Your task to perform on an android device: Empty the shopping cart on newegg. Search for logitech g pro on newegg, select the first entry, add it to the cart, then select checkout. Image 0: 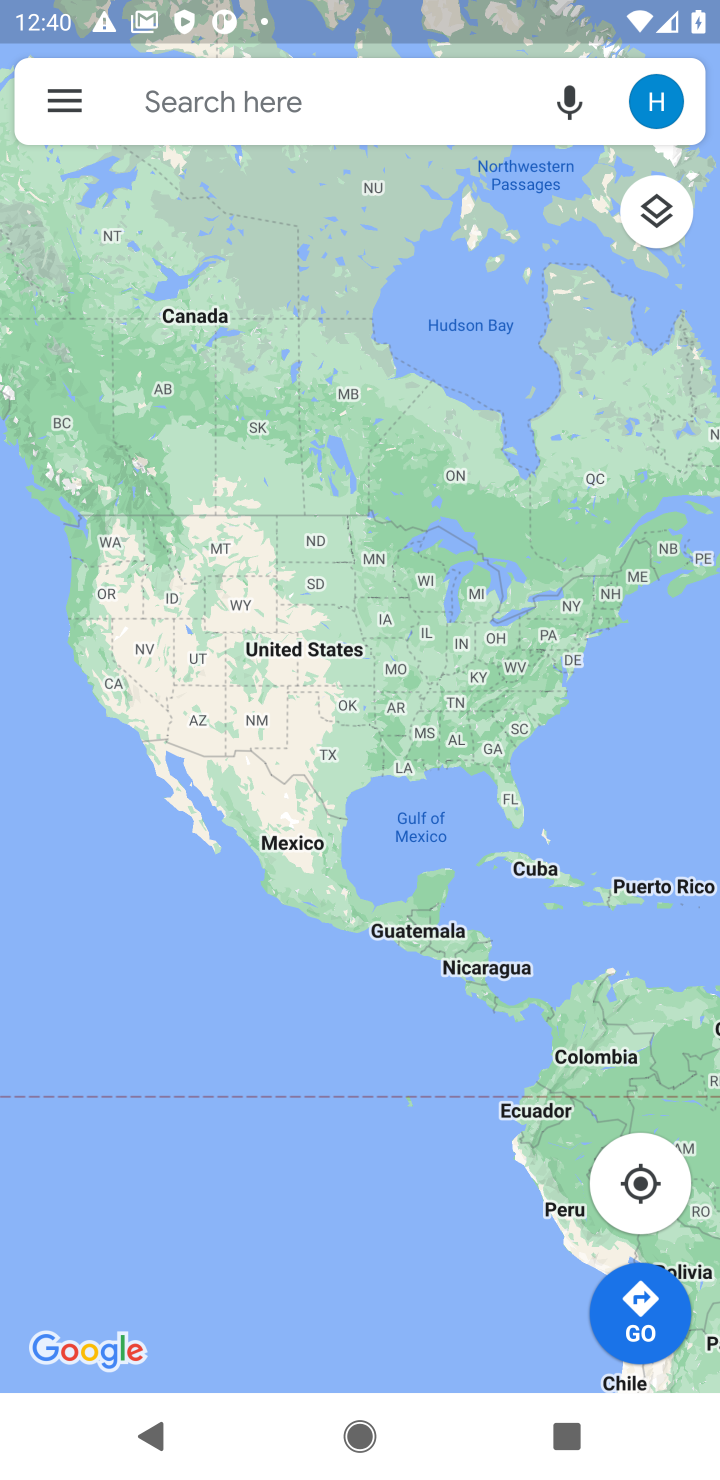
Step 0: press home button
Your task to perform on an android device: Empty the shopping cart on newegg. Search for logitech g pro on newegg, select the first entry, add it to the cart, then select checkout. Image 1: 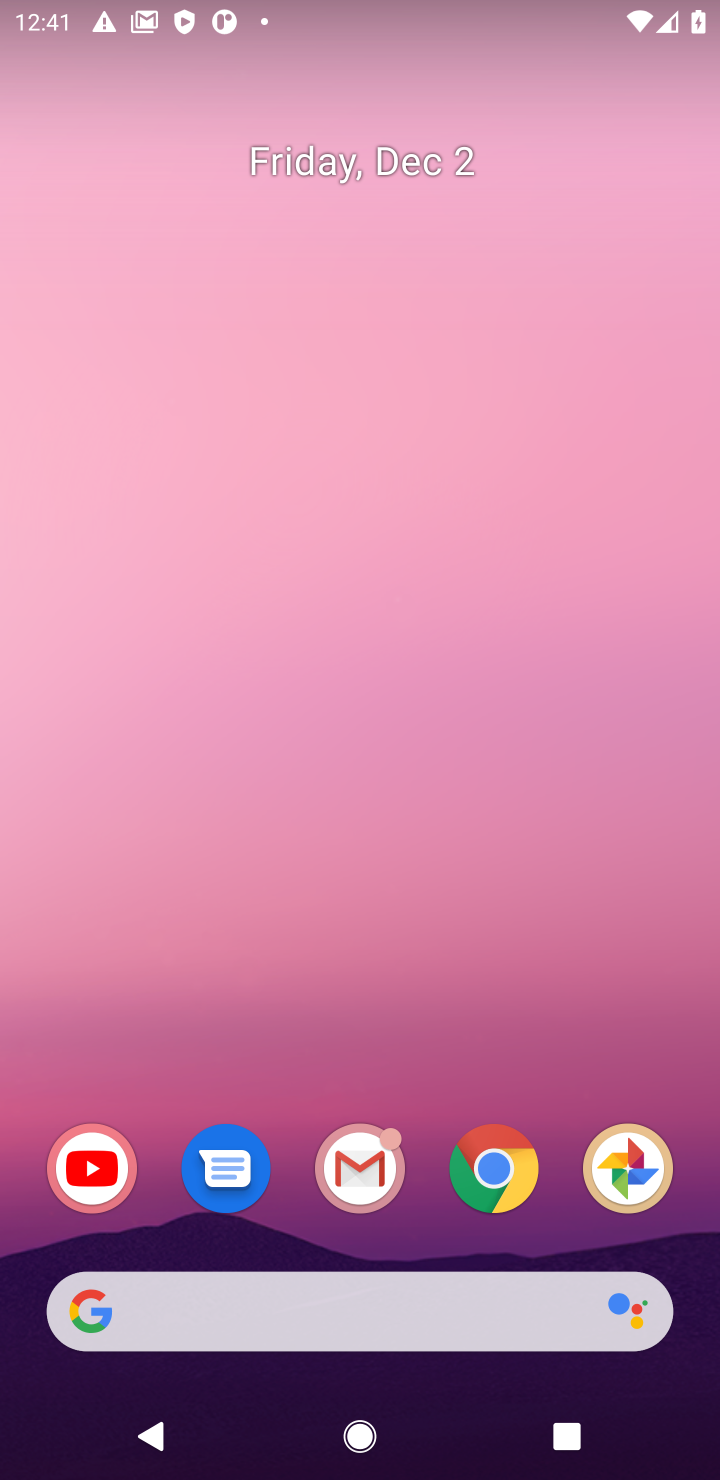
Step 1: click (481, 1170)
Your task to perform on an android device: Empty the shopping cart on newegg. Search for logitech g pro on newegg, select the first entry, add it to the cart, then select checkout. Image 2: 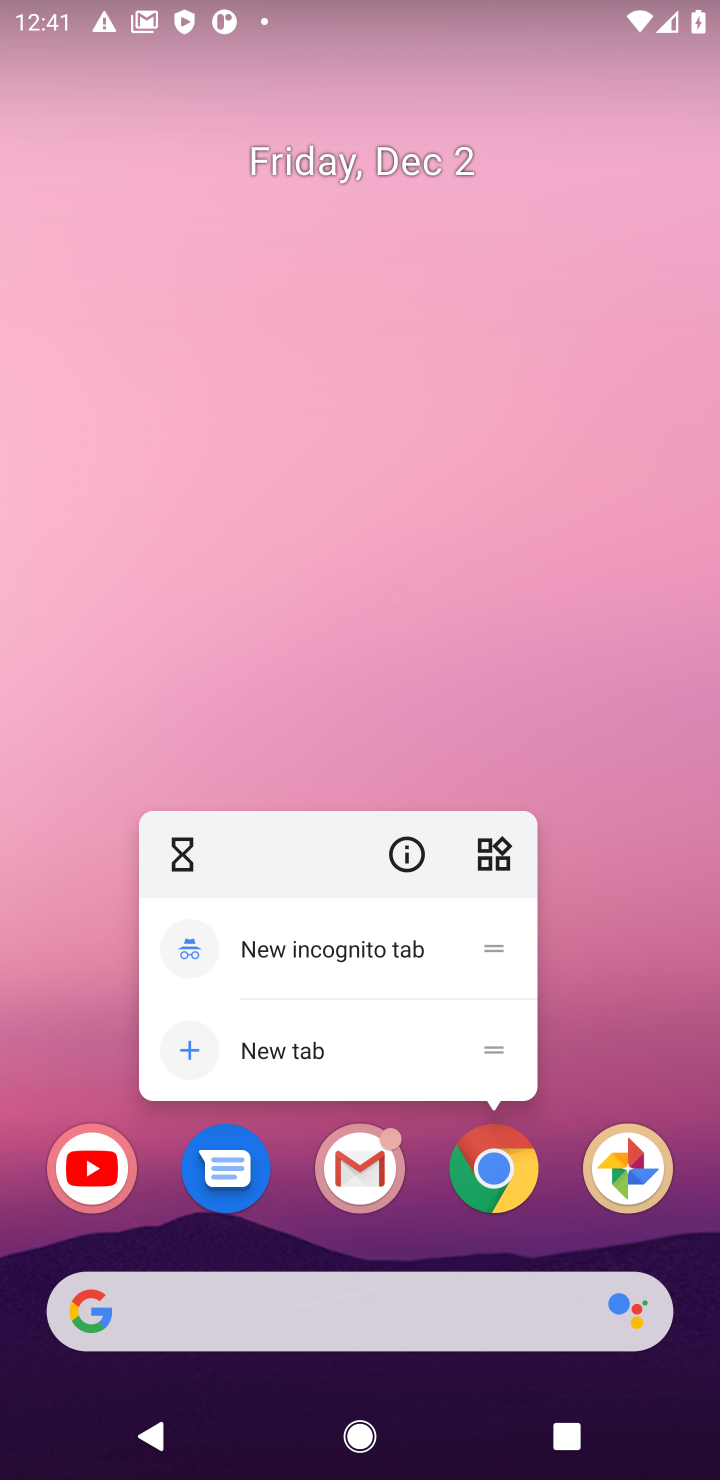
Step 2: click (489, 1174)
Your task to perform on an android device: Empty the shopping cart on newegg. Search for logitech g pro on newegg, select the first entry, add it to the cart, then select checkout. Image 3: 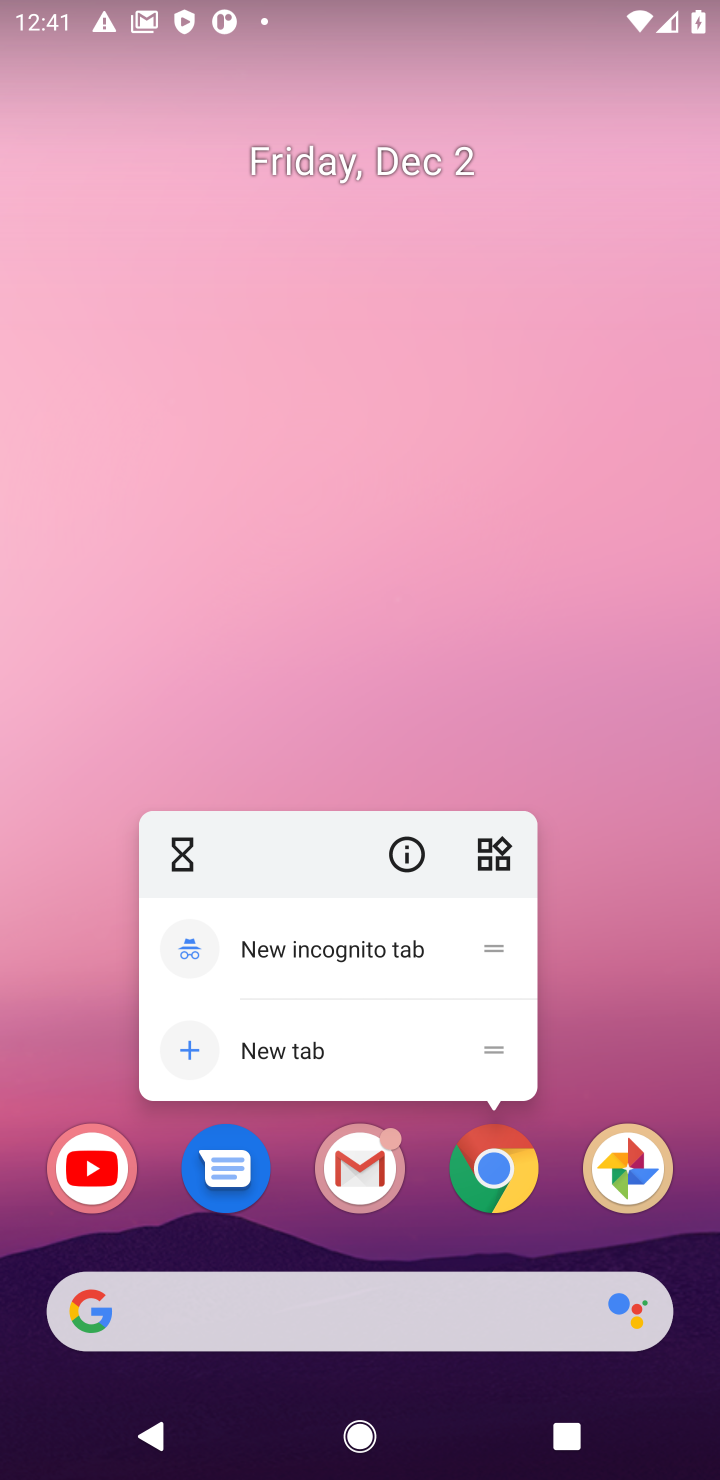
Step 3: click (494, 1173)
Your task to perform on an android device: Empty the shopping cart on newegg. Search for logitech g pro on newegg, select the first entry, add it to the cart, then select checkout. Image 4: 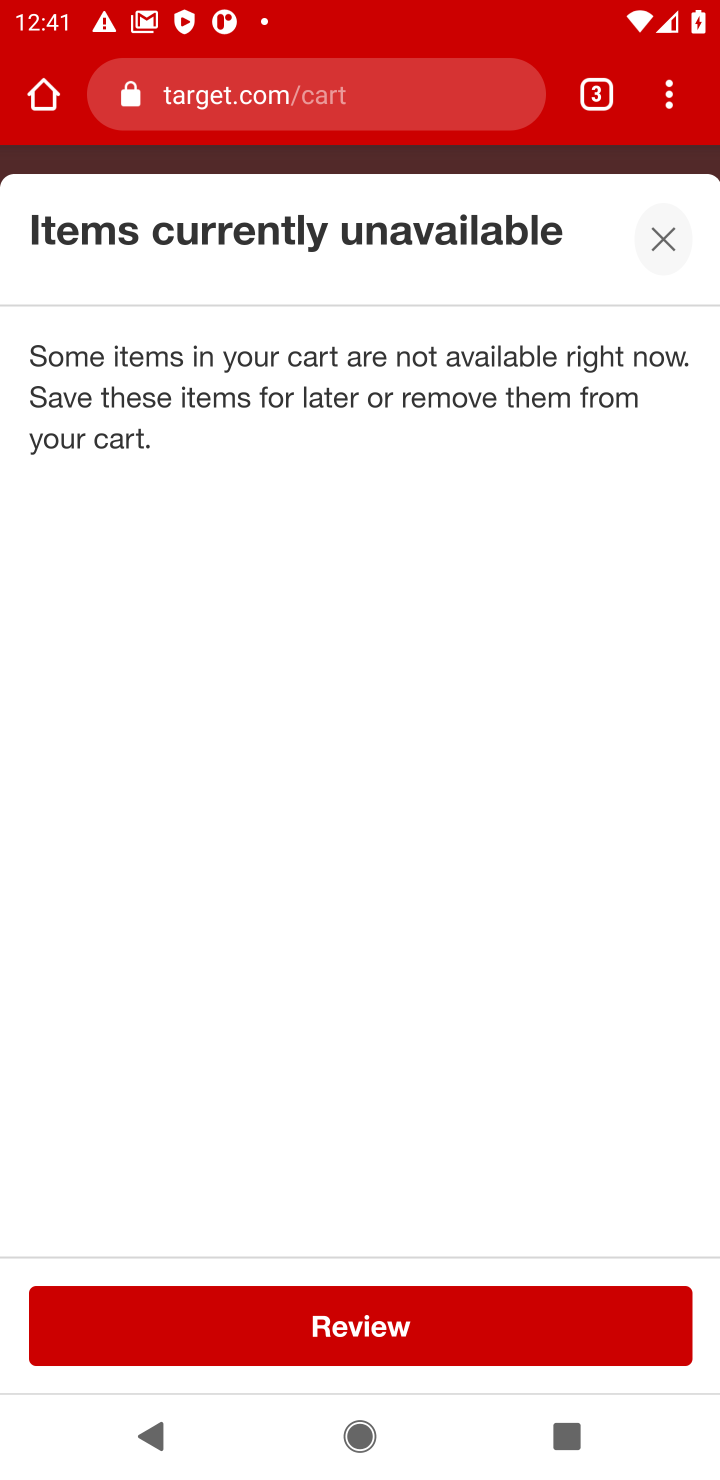
Step 4: click (272, 89)
Your task to perform on an android device: Empty the shopping cart on newegg. Search for logitech g pro on newegg, select the first entry, add it to the cart, then select checkout. Image 5: 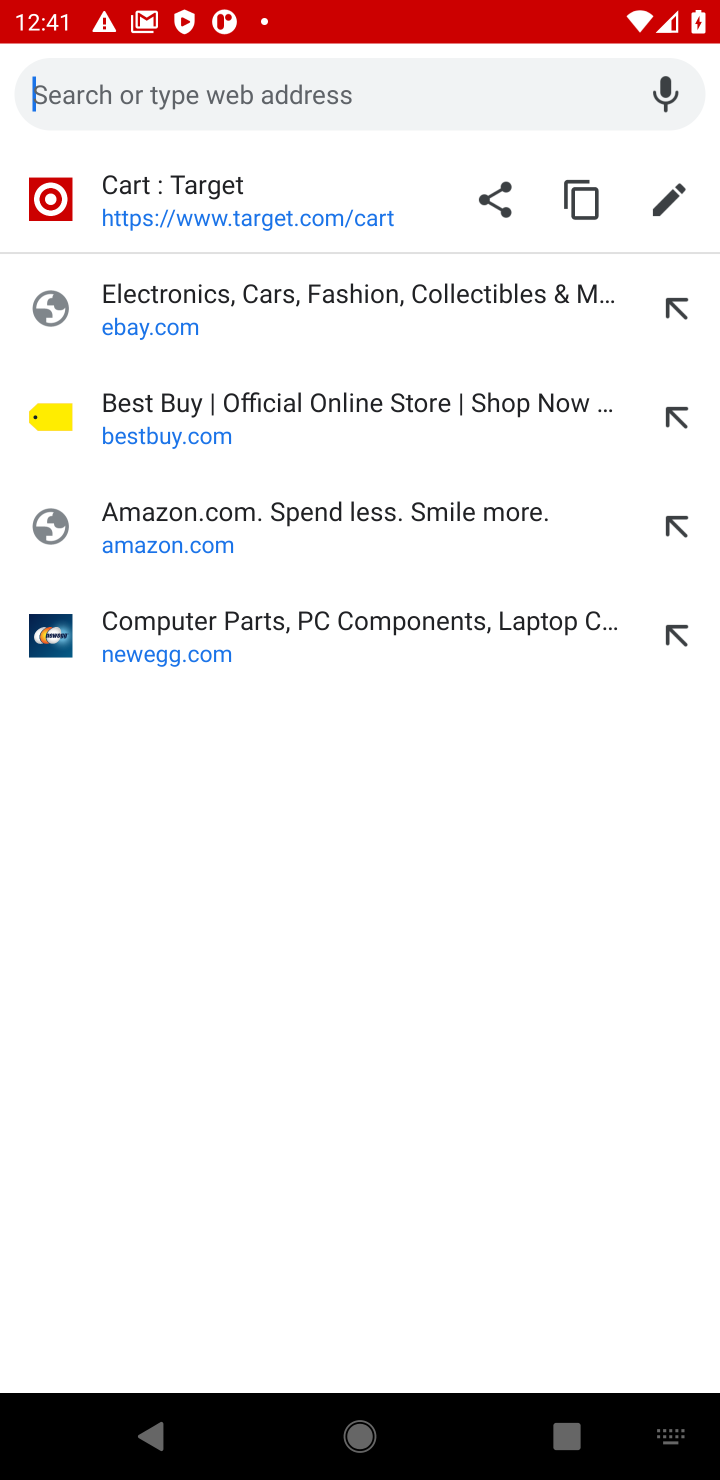
Step 5: click (109, 628)
Your task to perform on an android device: Empty the shopping cart on newegg. Search for logitech g pro on newegg, select the first entry, add it to the cart, then select checkout. Image 6: 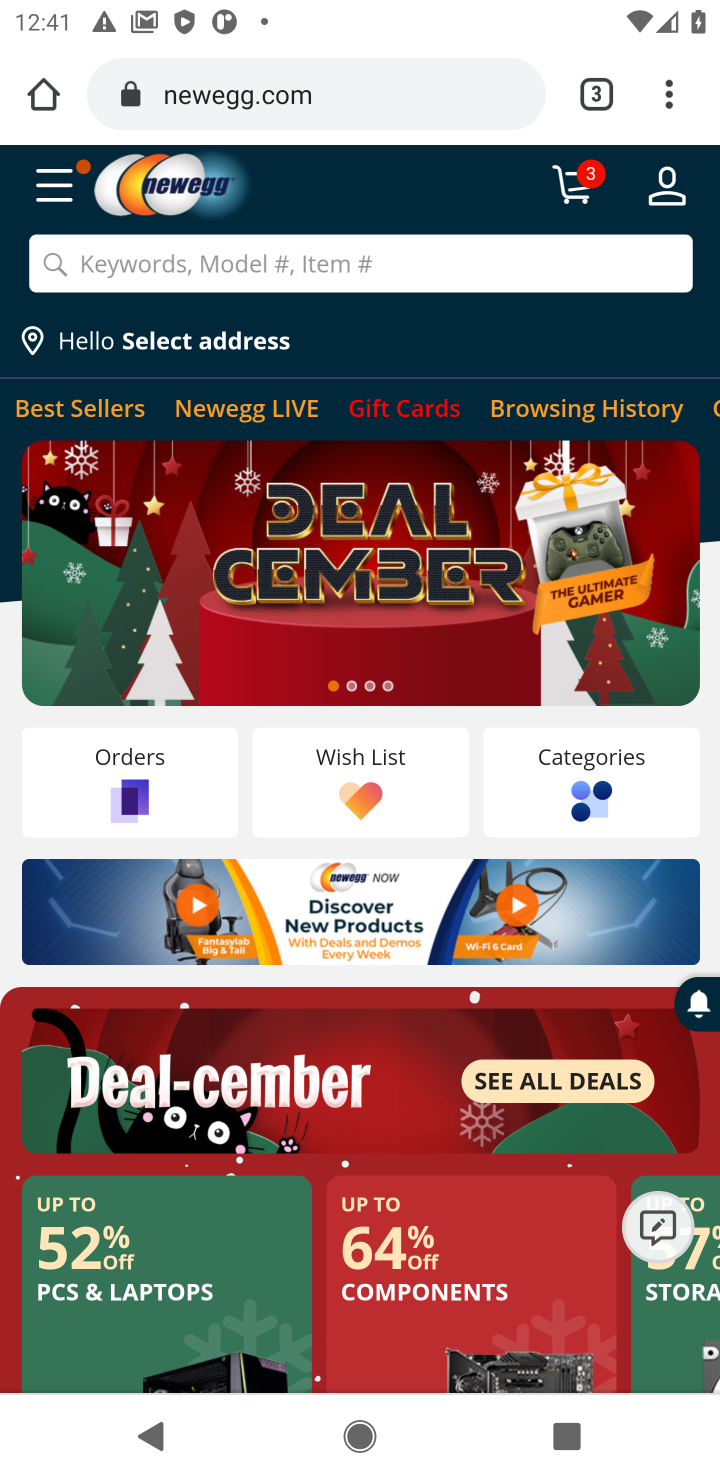
Step 6: click (577, 195)
Your task to perform on an android device: Empty the shopping cart on newegg. Search for logitech g pro on newegg, select the first entry, add it to the cart, then select checkout. Image 7: 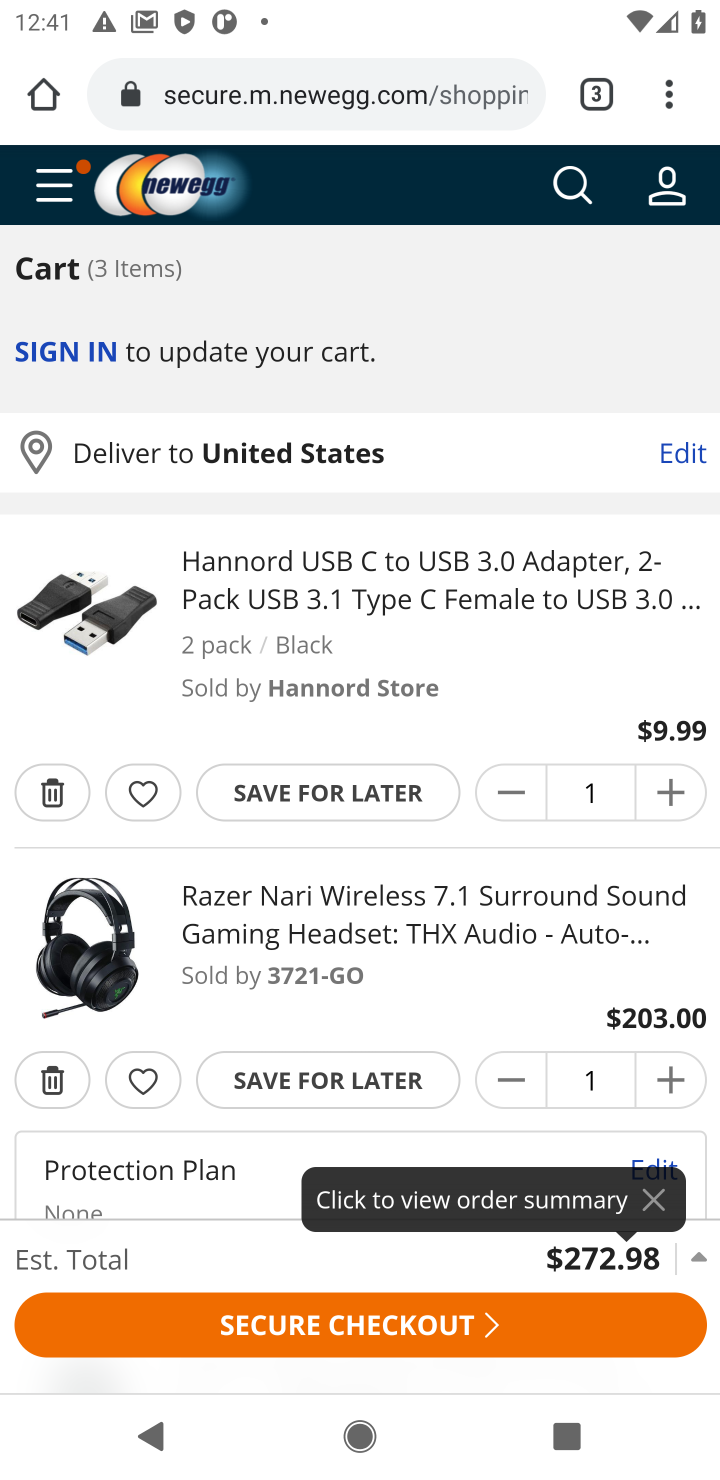
Step 7: click (61, 793)
Your task to perform on an android device: Empty the shopping cart on newegg. Search for logitech g pro on newegg, select the first entry, add it to the cart, then select checkout. Image 8: 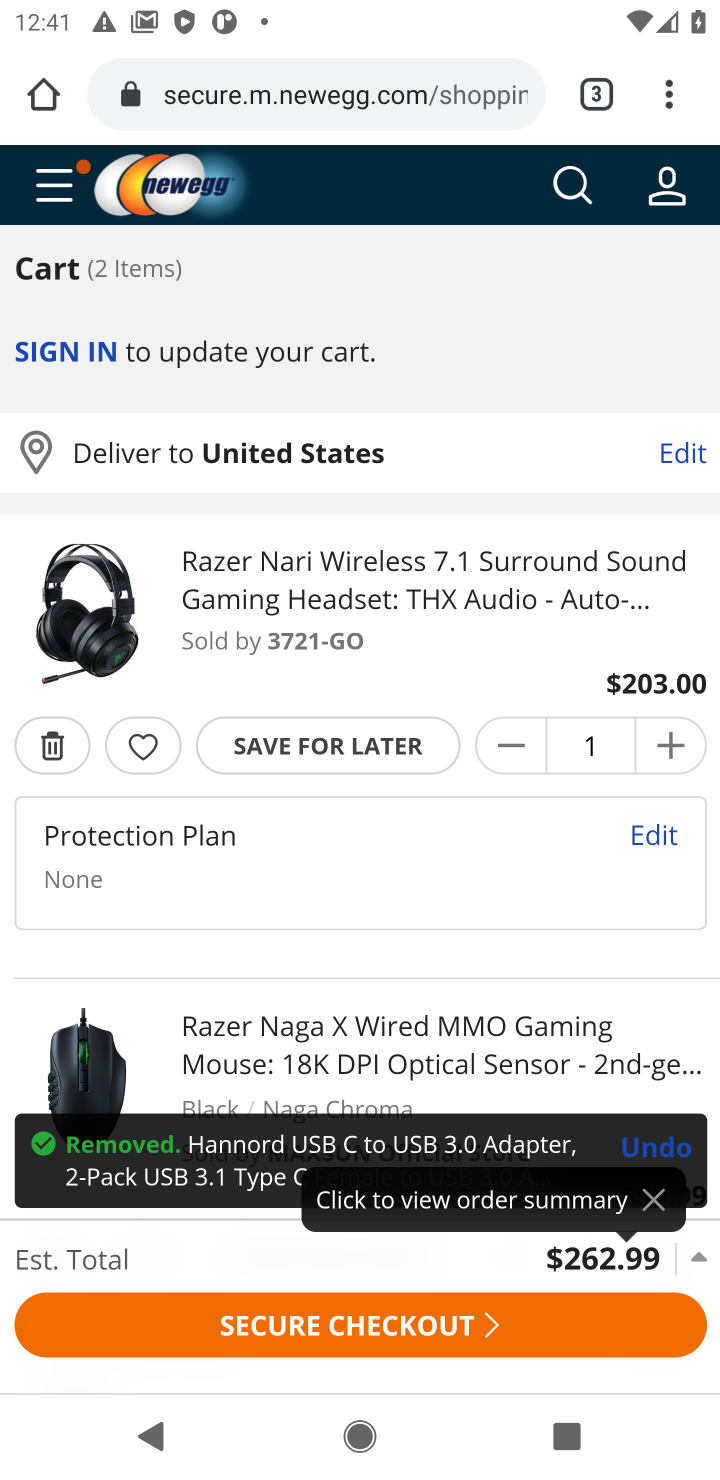
Step 8: click (50, 749)
Your task to perform on an android device: Empty the shopping cart on newegg. Search for logitech g pro on newegg, select the first entry, add it to the cart, then select checkout. Image 9: 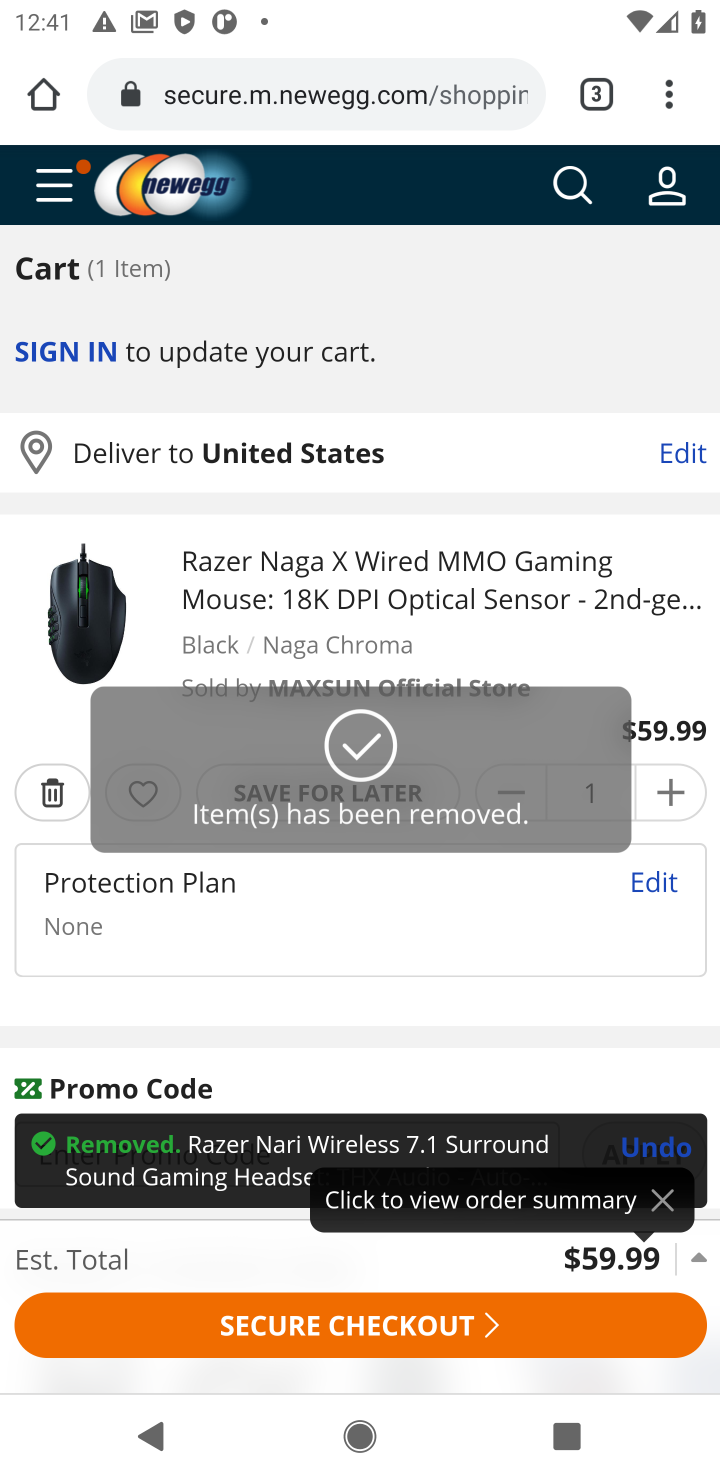
Step 9: click (53, 796)
Your task to perform on an android device: Empty the shopping cart on newegg. Search for logitech g pro on newegg, select the first entry, add it to the cart, then select checkout. Image 10: 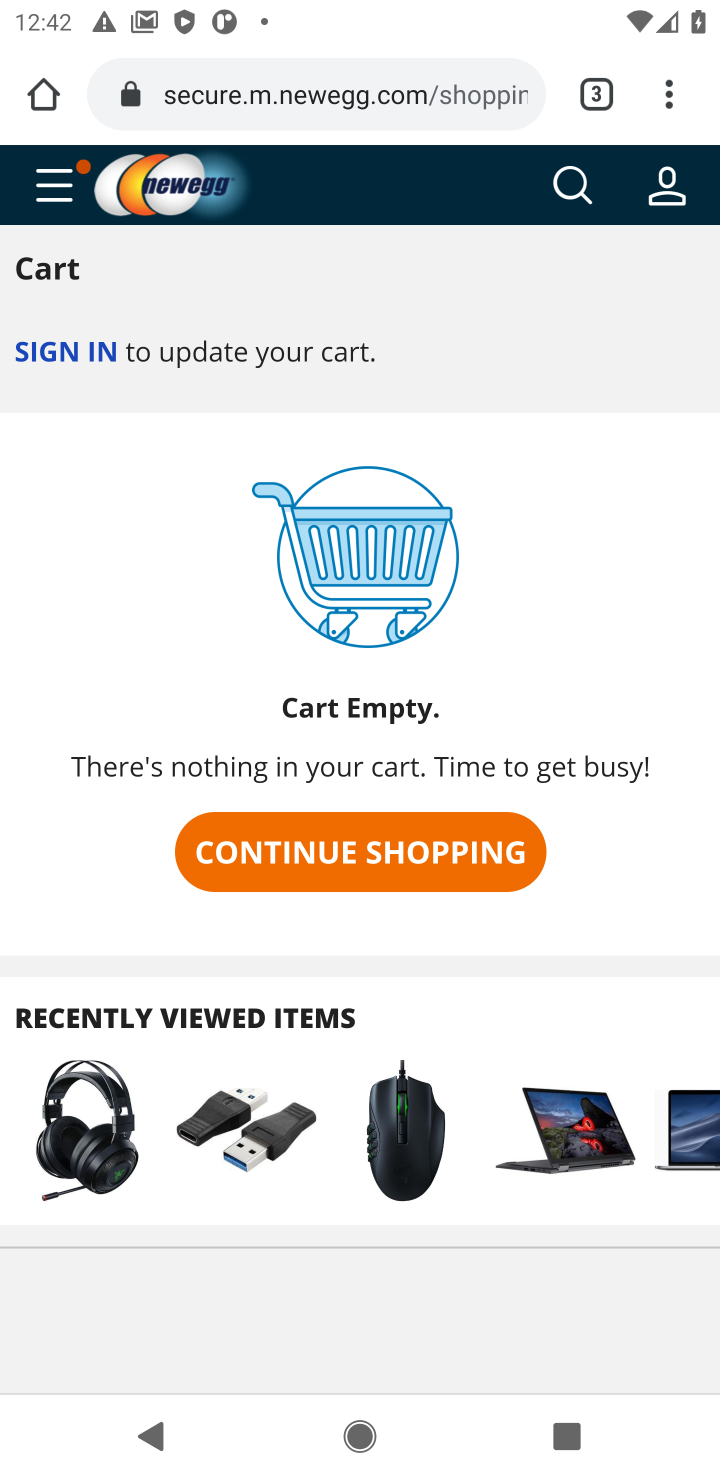
Step 10: click (565, 181)
Your task to perform on an android device: Empty the shopping cart on newegg. Search for logitech g pro on newegg, select the first entry, add it to the cart, then select checkout. Image 11: 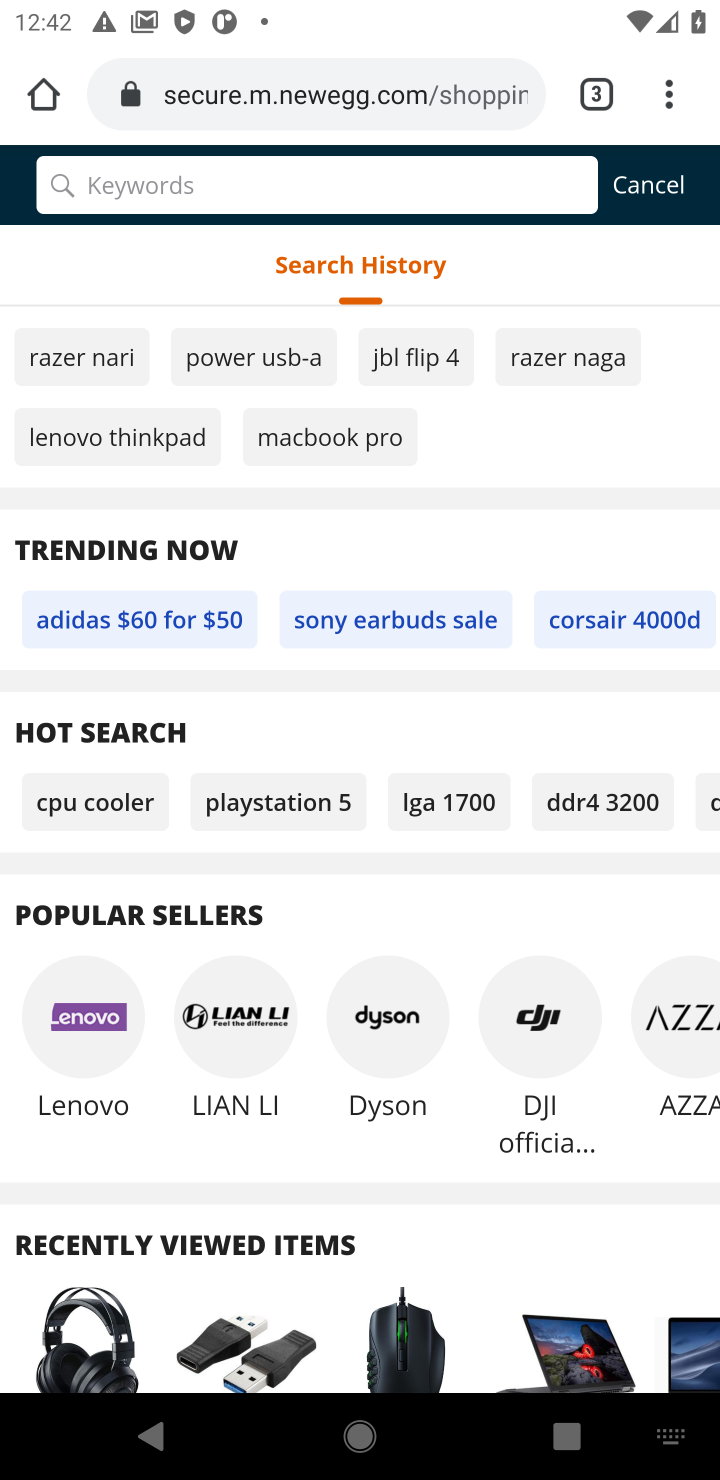
Step 11: type " logitech g pro"
Your task to perform on an android device: Empty the shopping cart on newegg. Search for logitech g pro on newegg, select the first entry, add it to the cart, then select checkout. Image 12: 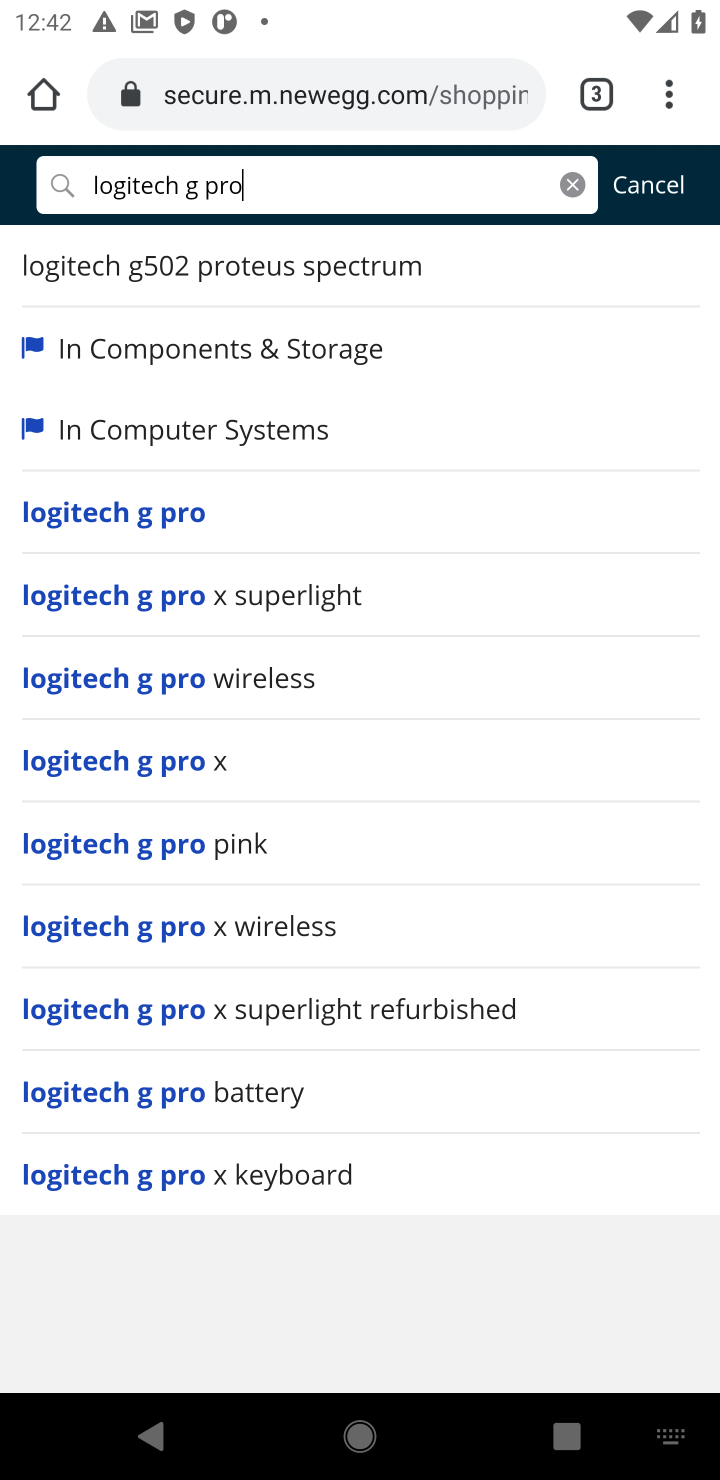
Step 12: click (126, 520)
Your task to perform on an android device: Empty the shopping cart on newegg. Search for logitech g pro on newegg, select the first entry, add it to the cart, then select checkout. Image 13: 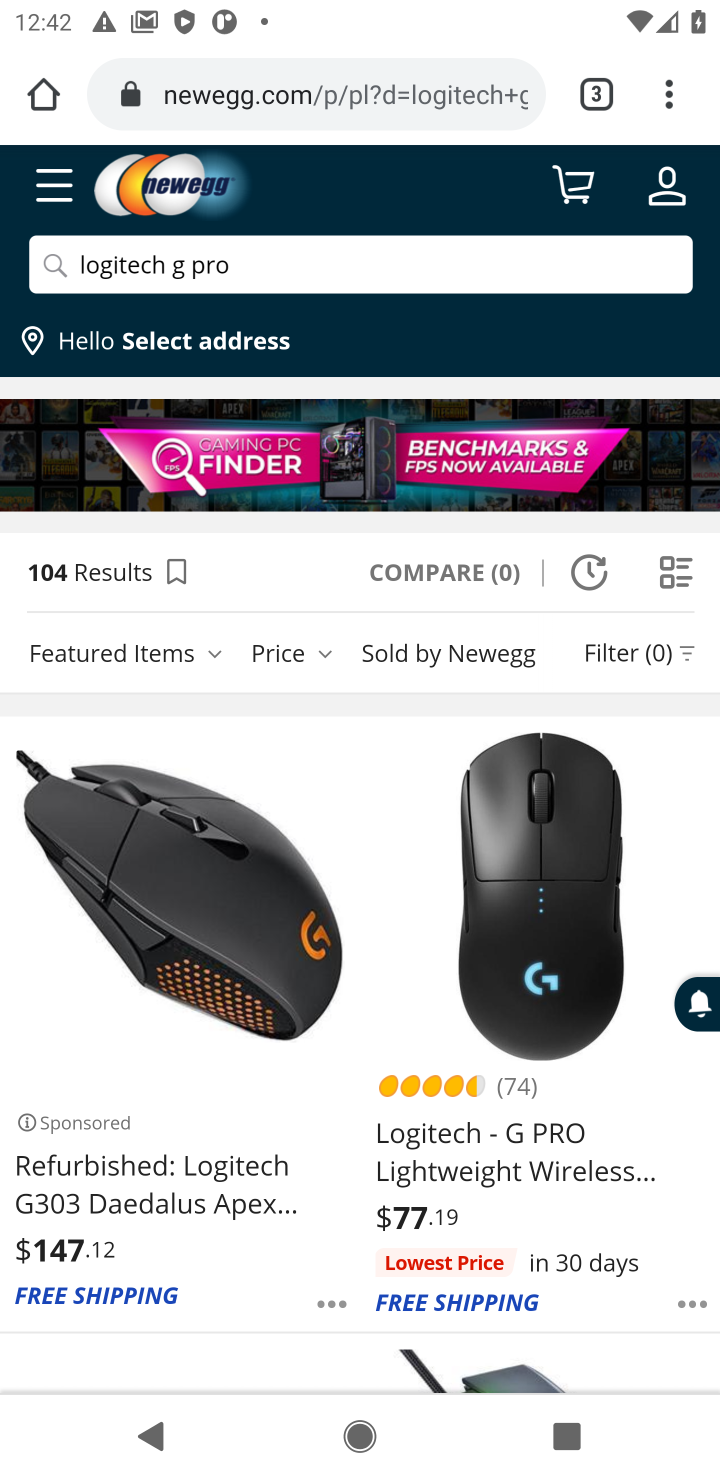
Step 13: task complete